Your task to perform on an android device: Open settings Image 0: 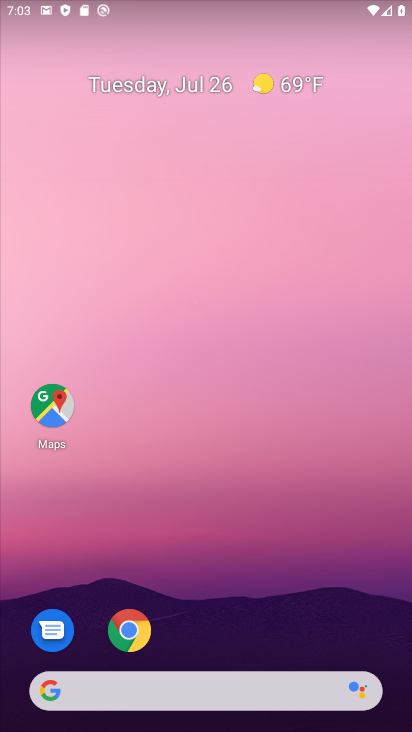
Step 0: drag from (261, 629) to (274, 145)
Your task to perform on an android device: Open settings Image 1: 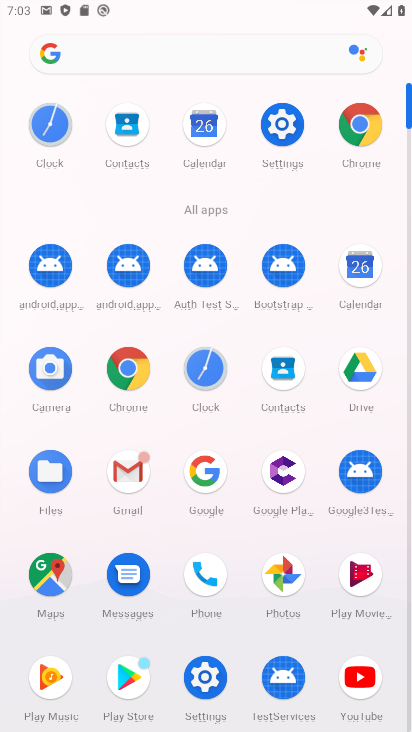
Step 1: click (210, 670)
Your task to perform on an android device: Open settings Image 2: 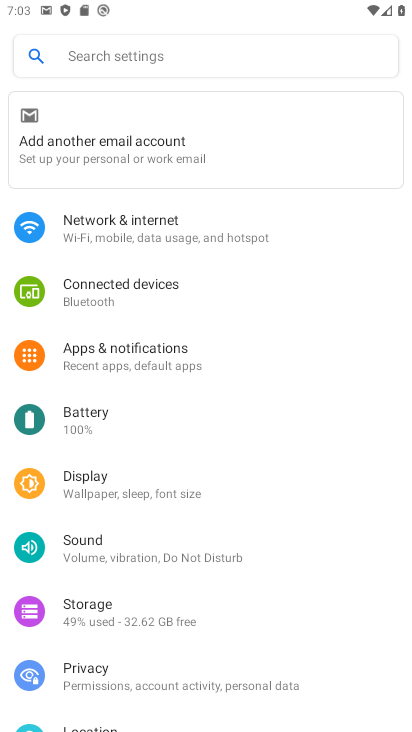
Step 2: task complete